Your task to perform on an android device: Do I have any events this weekend? Image 0: 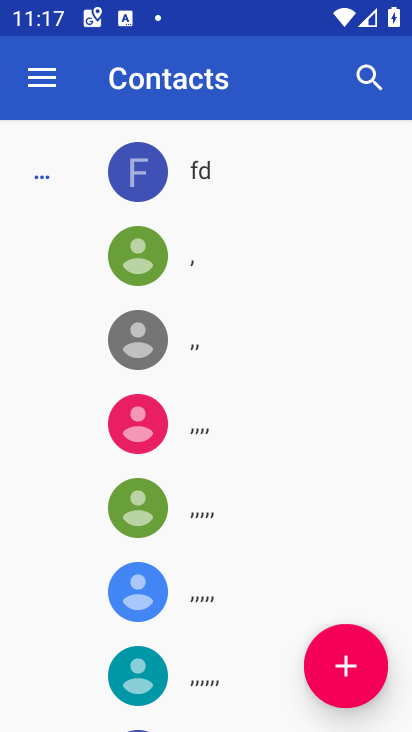
Step 0: press home button
Your task to perform on an android device: Do I have any events this weekend? Image 1: 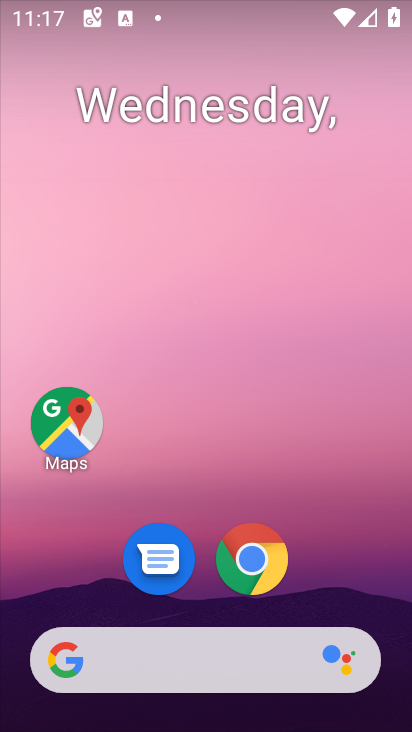
Step 1: drag from (289, 610) to (329, 14)
Your task to perform on an android device: Do I have any events this weekend? Image 2: 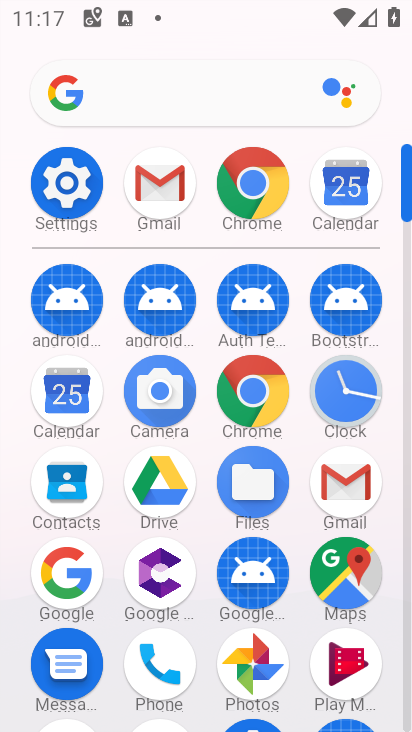
Step 2: click (51, 417)
Your task to perform on an android device: Do I have any events this weekend? Image 3: 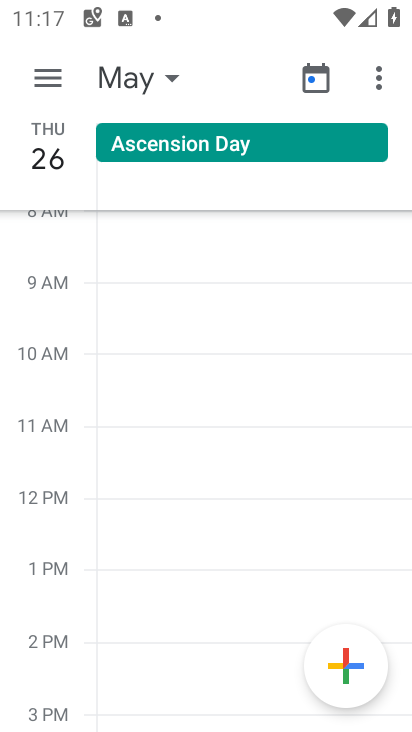
Step 3: click (155, 81)
Your task to perform on an android device: Do I have any events this weekend? Image 4: 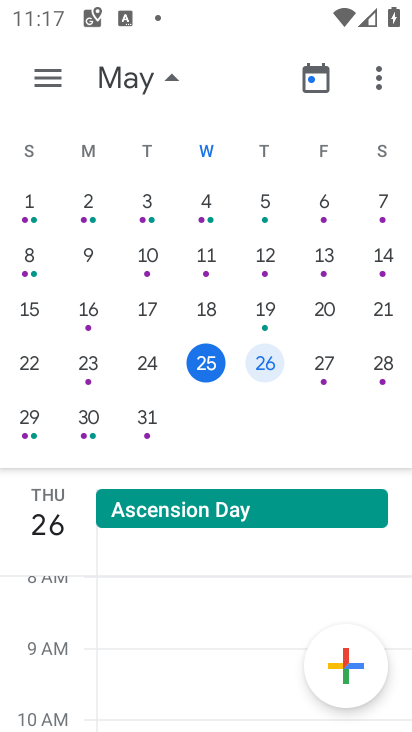
Step 4: click (378, 373)
Your task to perform on an android device: Do I have any events this weekend? Image 5: 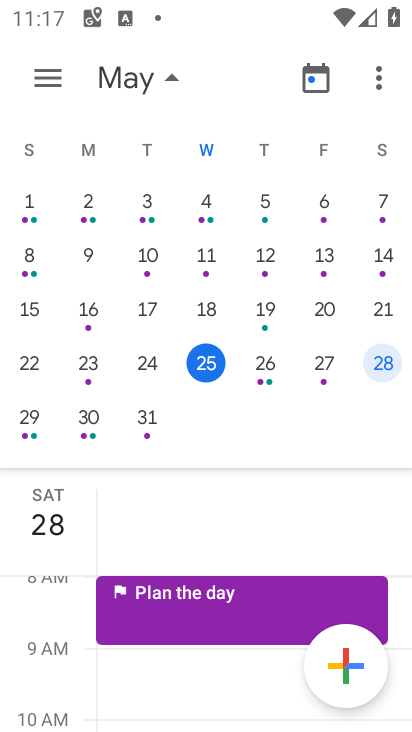
Step 5: task complete